Your task to perform on an android device: move an email to a new category in the gmail app Image 0: 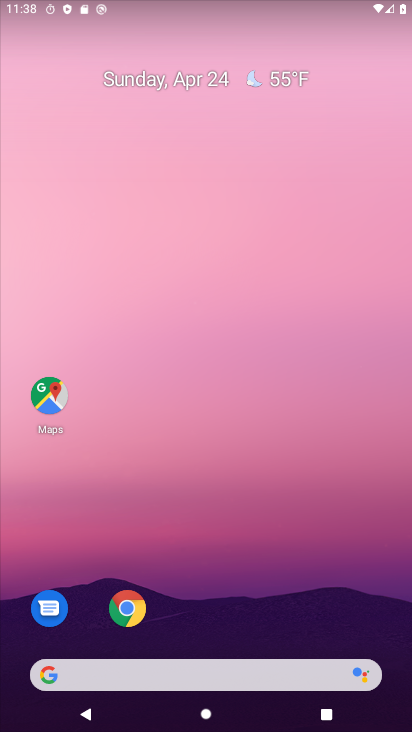
Step 0: drag from (191, 554) to (289, 80)
Your task to perform on an android device: move an email to a new category in the gmail app Image 1: 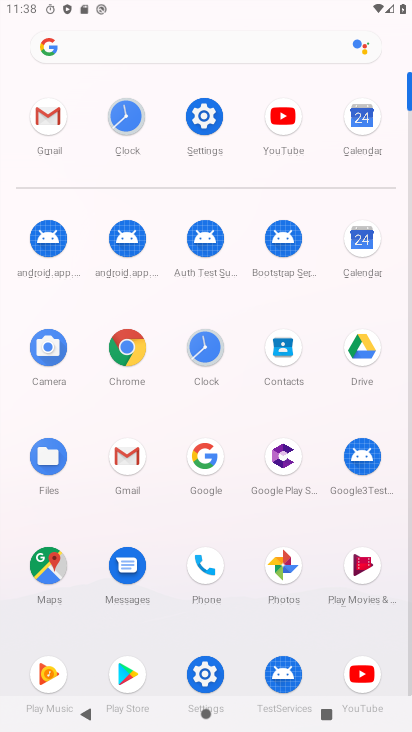
Step 1: click (55, 109)
Your task to perform on an android device: move an email to a new category in the gmail app Image 2: 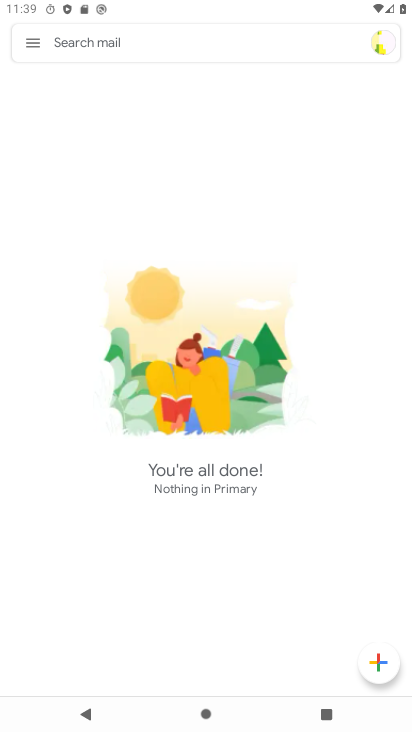
Step 2: click (32, 43)
Your task to perform on an android device: move an email to a new category in the gmail app Image 3: 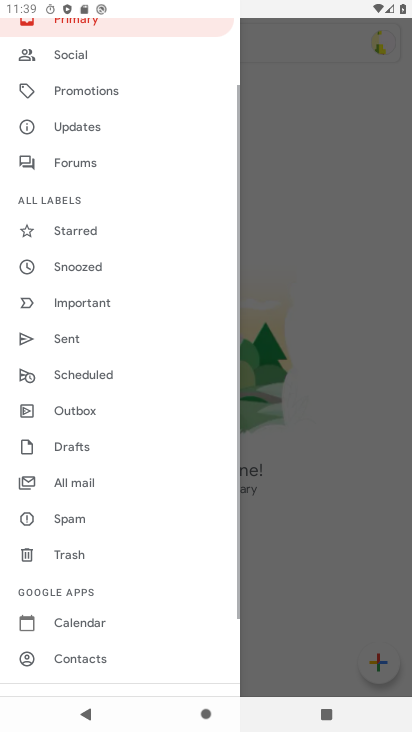
Step 3: click (73, 485)
Your task to perform on an android device: move an email to a new category in the gmail app Image 4: 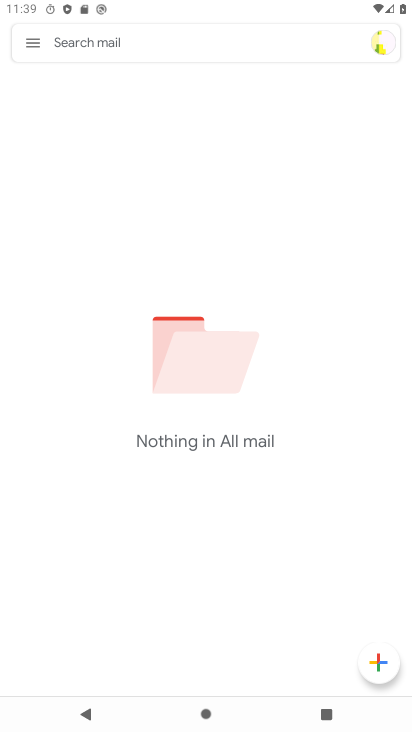
Step 4: task complete